Your task to perform on an android device: Open Google Maps Image 0: 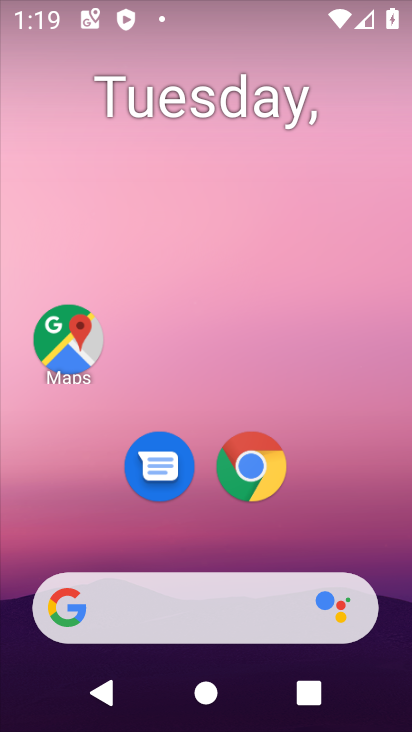
Step 0: drag from (191, 526) to (220, 0)
Your task to perform on an android device: Open Google Maps Image 1: 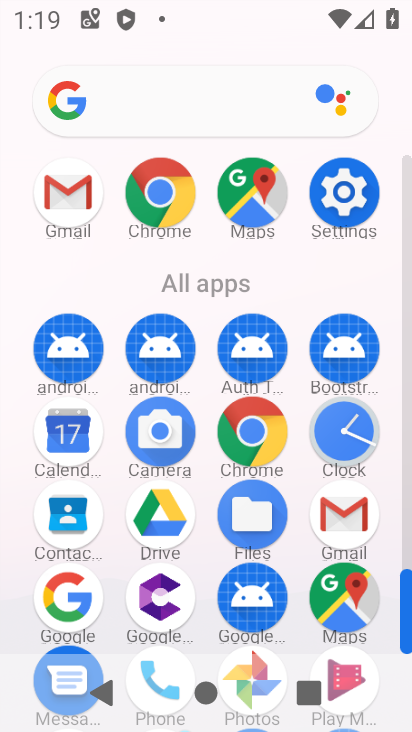
Step 1: click (353, 595)
Your task to perform on an android device: Open Google Maps Image 2: 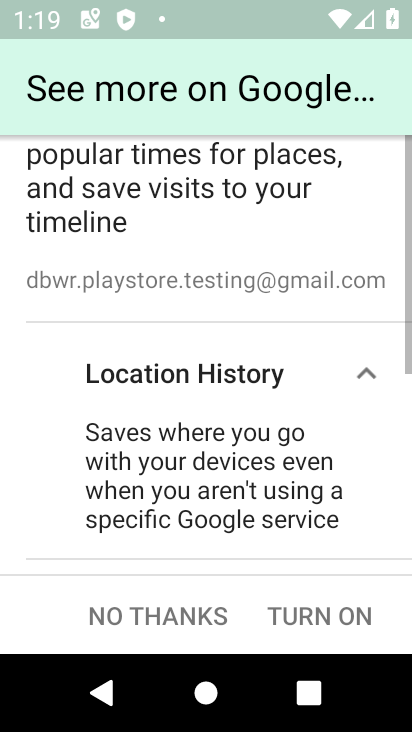
Step 2: click (43, 93)
Your task to perform on an android device: Open Google Maps Image 3: 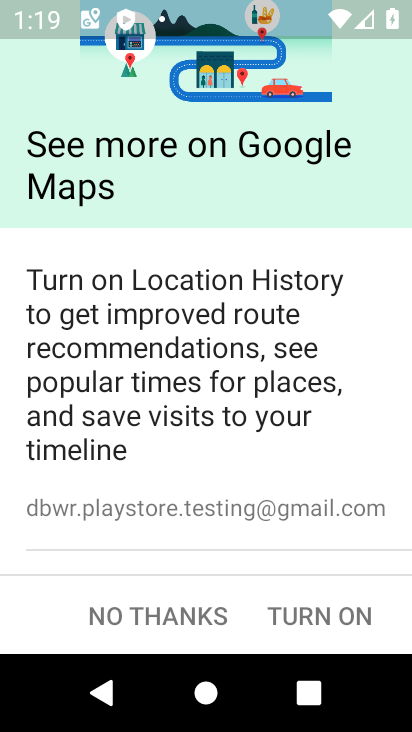
Step 3: click (139, 624)
Your task to perform on an android device: Open Google Maps Image 4: 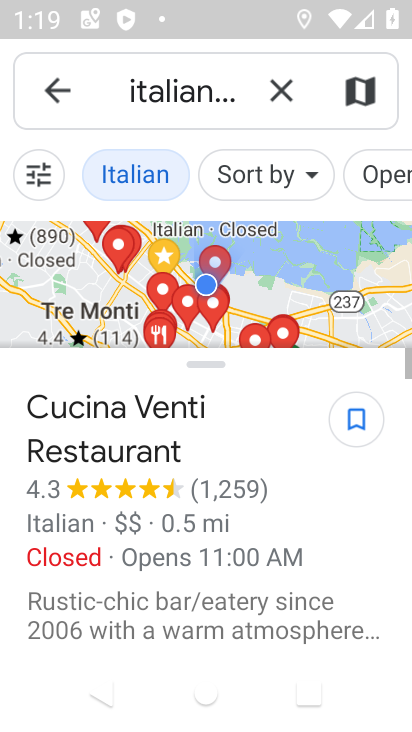
Step 4: click (49, 104)
Your task to perform on an android device: Open Google Maps Image 5: 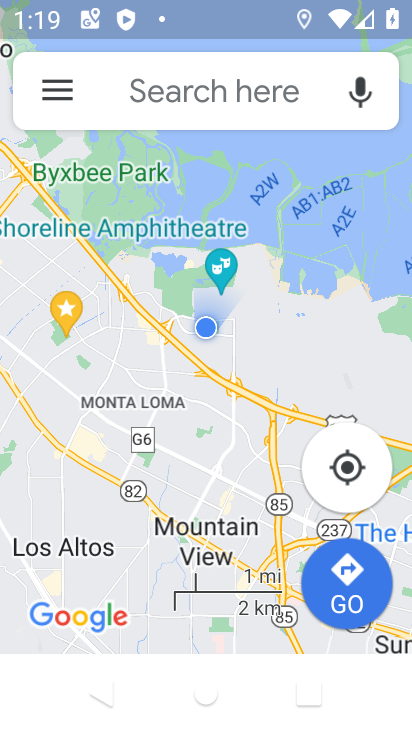
Step 5: click (49, 103)
Your task to perform on an android device: Open Google Maps Image 6: 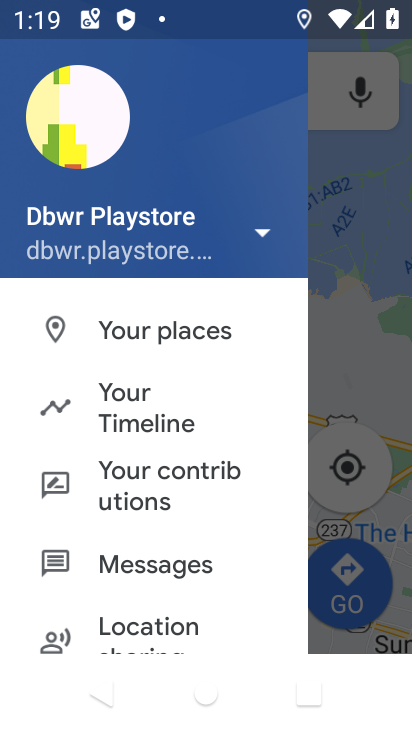
Step 6: drag from (135, 602) to (199, 389)
Your task to perform on an android device: Open Google Maps Image 7: 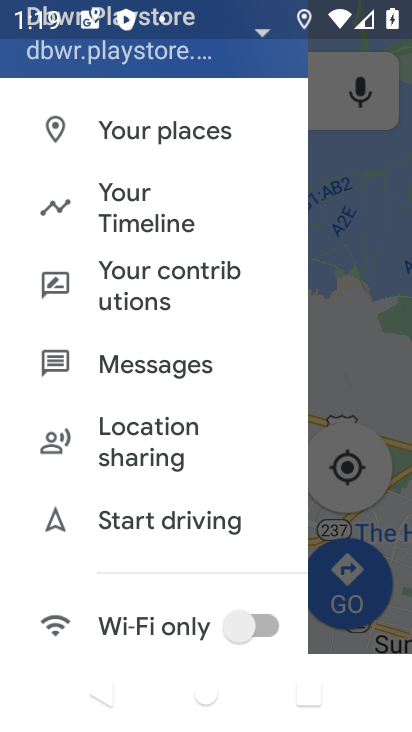
Step 7: click (347, 148)
Your task to perform on an android device: Open Google Maps Image 8: 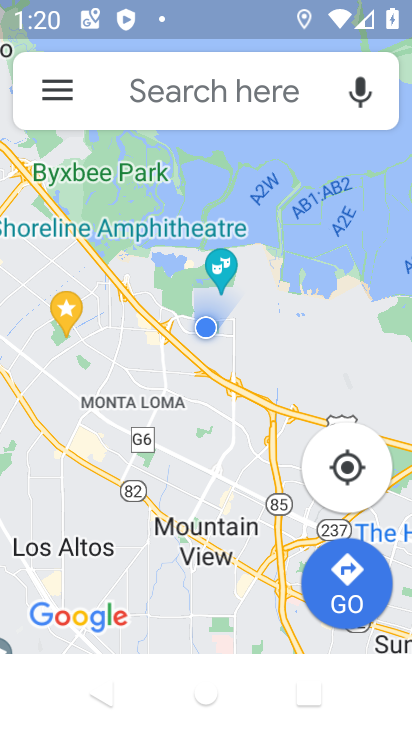
Step 8: task complete